Your task to perform on an android device: change the clock display to analog Image 0: 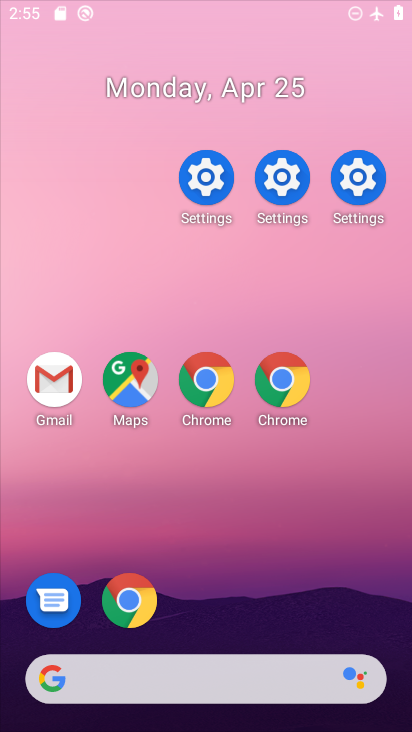
Step 0: click (92, 92)
Your task to perform on an android device: change the clock display to analog Image 1: 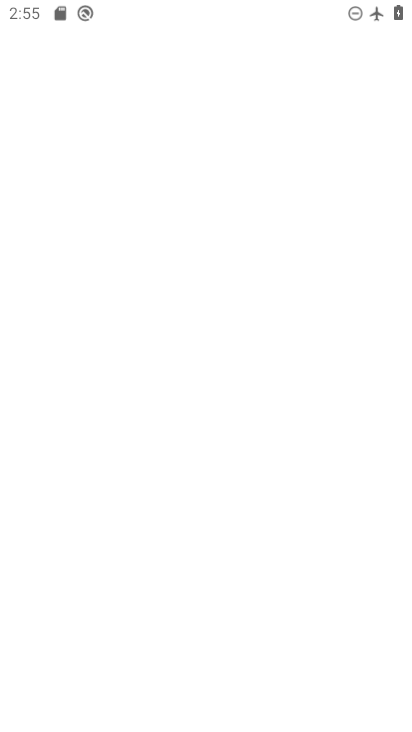
Step 1: drag from (218, 633) to (97, 36)
Your task to perform on an android device: change the clock display to analog Image 2: 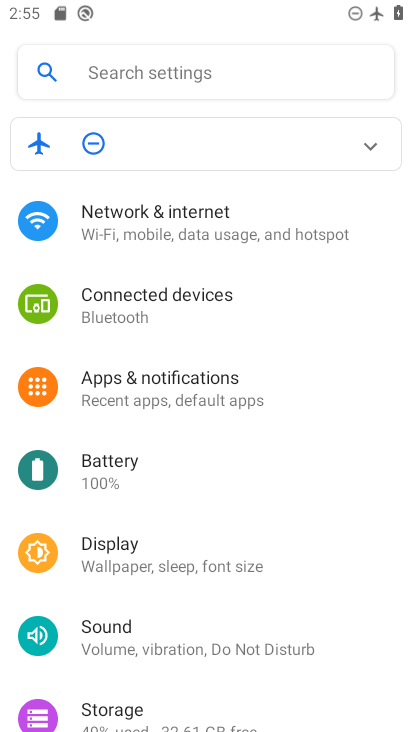
Step 2: click (125, 562)
Your task to perform on an android device: change the clock display to analog Image 3: 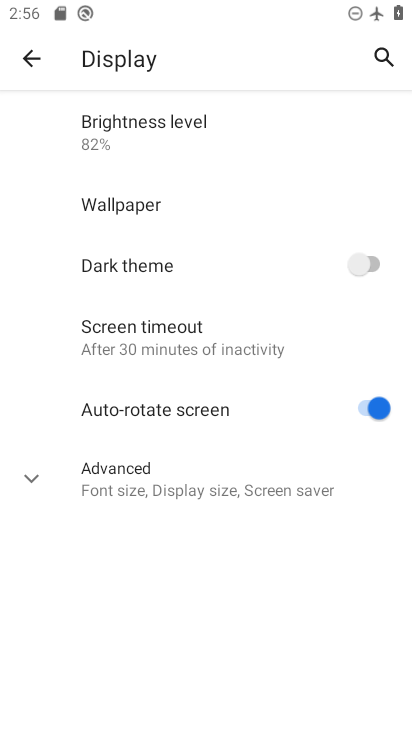
Step 3: click (28, 61)
Your task to perform on an android device: change the clock display to analog Image 4: 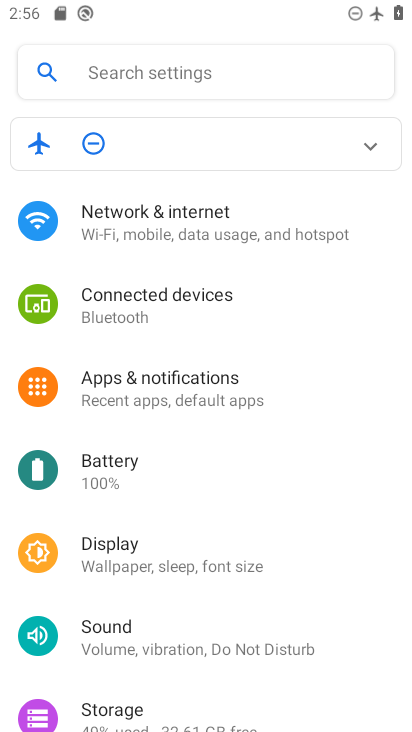
Step 4: press home button
Your task to perform on an android device: change the clock display to analog Image 5: 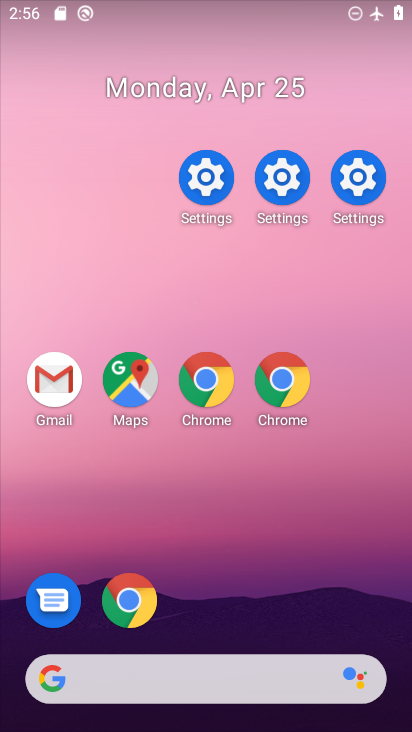
Step 5: drag from (330, 677) to (135, 0)
Your task to perform on an android device: change the clock display to analog Image 6: 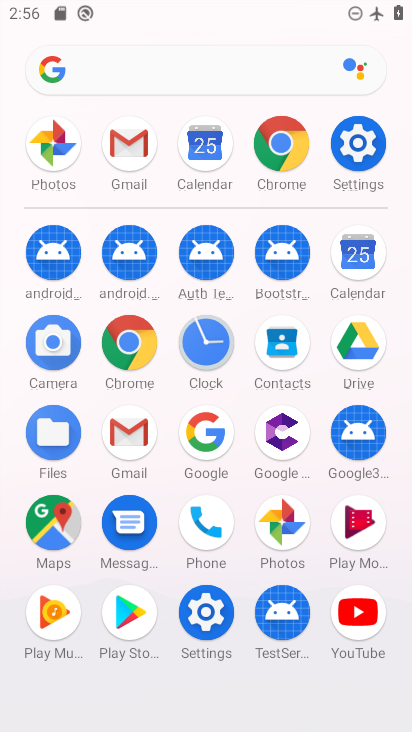
Step 6: click (196, 347)
Your task to perform on an android device: change the clock display to analog Image 7: 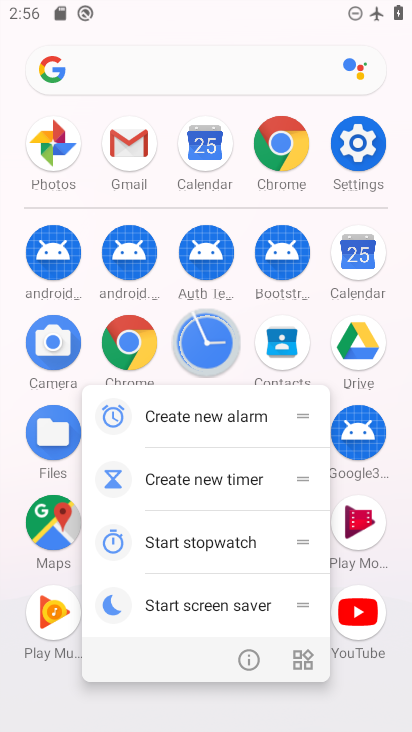
Step 7: click (197, 350)
Your task to perform on an android device: change the clock display to analog Image 8: 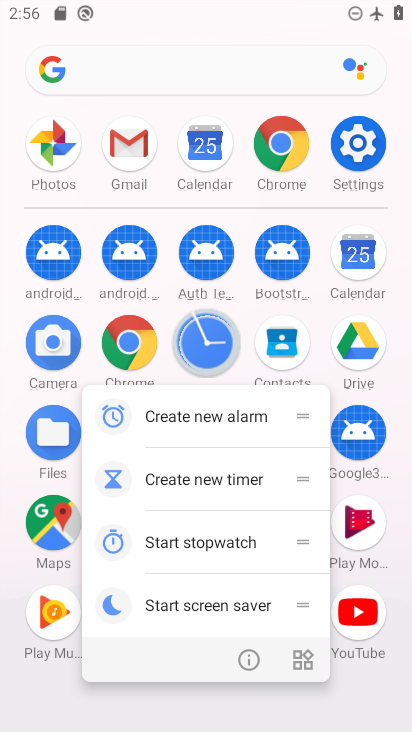
Step 8: click (190, 359)
Your task to perform on an android device: change the clock display to analog Image 9: 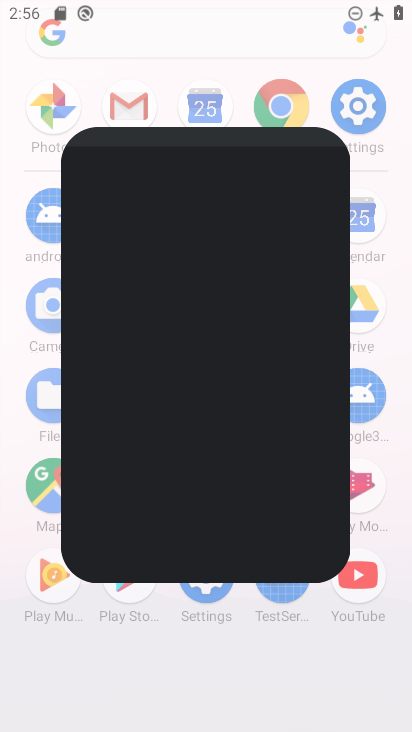
Step 9: click (209, 335)
Your task to perform on an android device: change the clock display to analog Image 10: 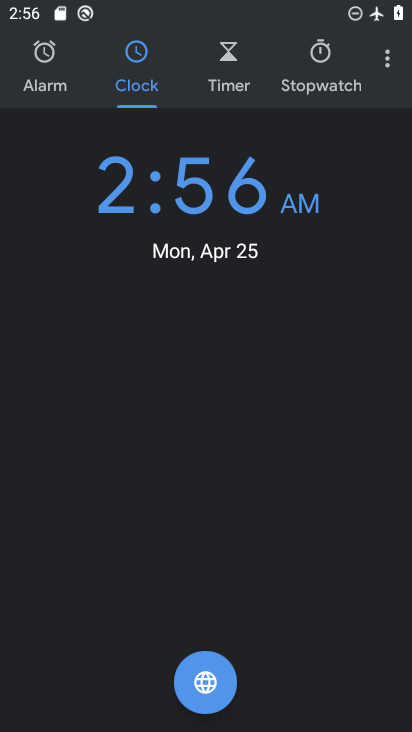
Step 10: click (388, 63)
Your task to perform on an android device: change the clock display to analog Image 11: 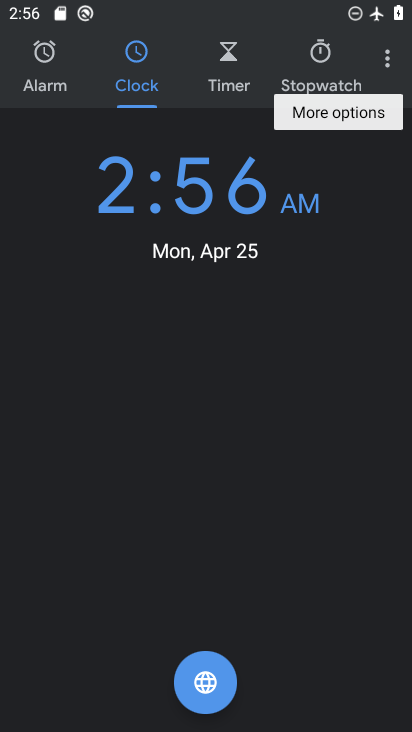
Step 11: click (348, 122)
Your task to perform on an android device: change the clock display to analog Image 12: 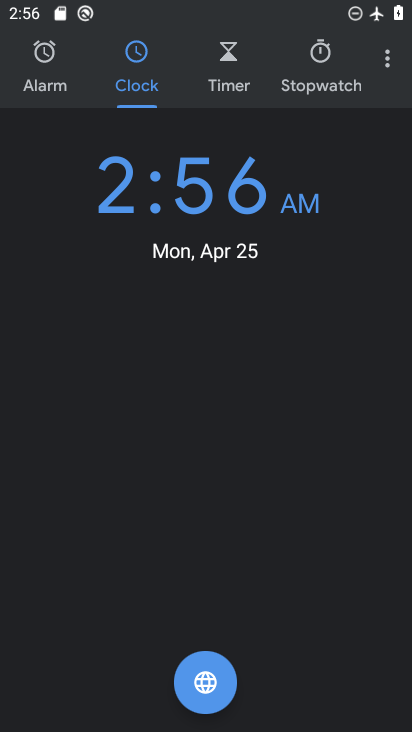
Step 12: click (384, 59)
Your task to perform on an android device: change the clock display to analog Image 13: 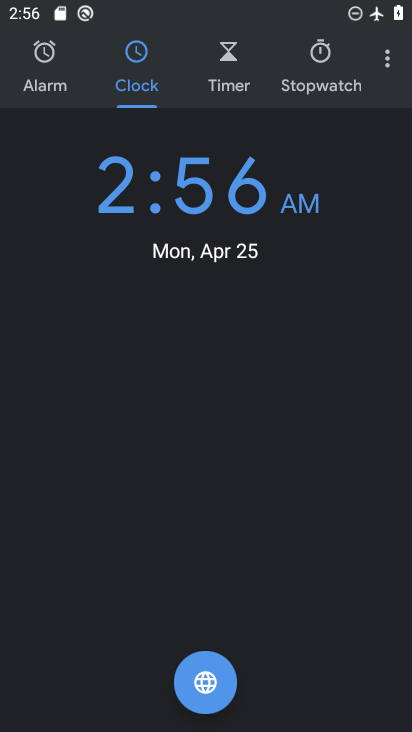
Step 13: click (385, 58)
Your task to perform on an android device: change the clock display to analog Image 14: 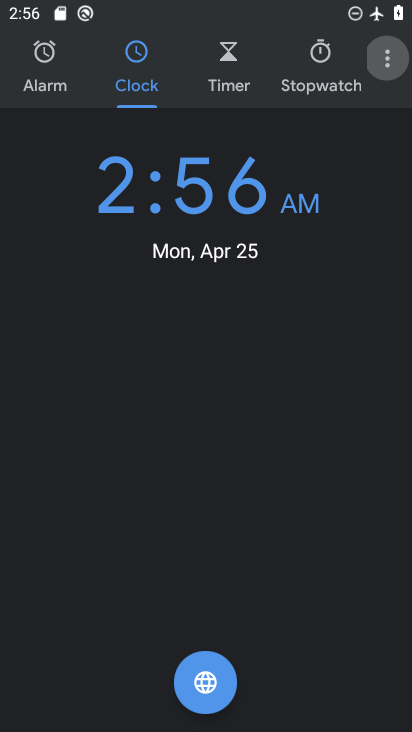
Step 14: click (389, 71)
Your task to perform on an android device: change the clock display to analog Image 15: 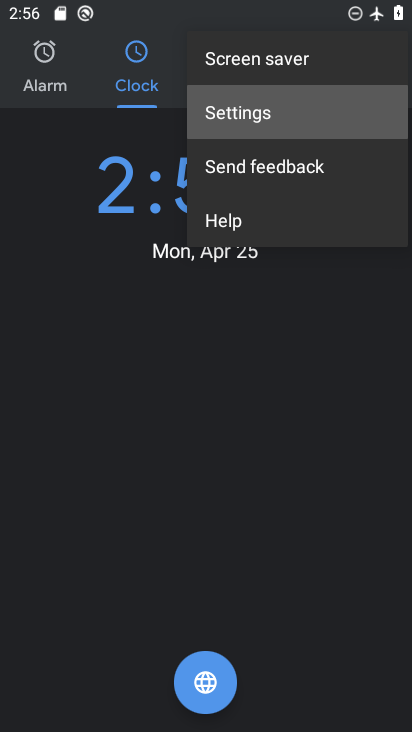
Step 15: click (390, 79)
Your task to perform on an android device: change the clock display to analog Image 16: 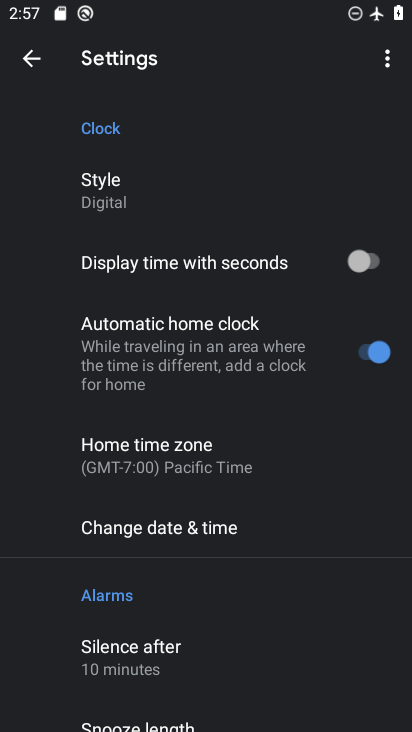
Step 16: click (158, 183)
Your task to perform on an android device: change the clock display to analog Image 17: 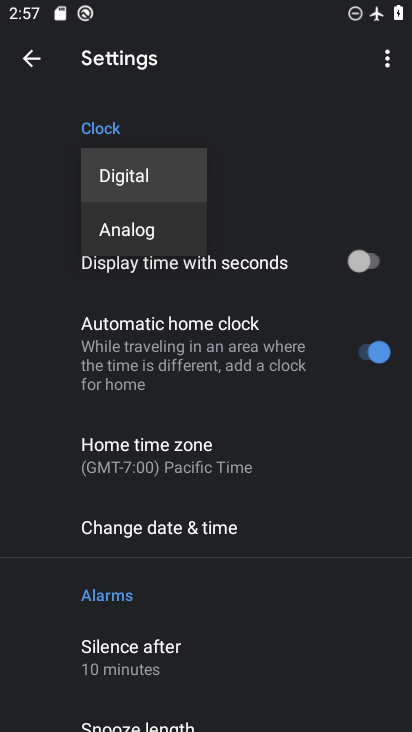
Step 17: click (154, 230)
Your task to perform on an android device: change the clock display to analog Image 18: 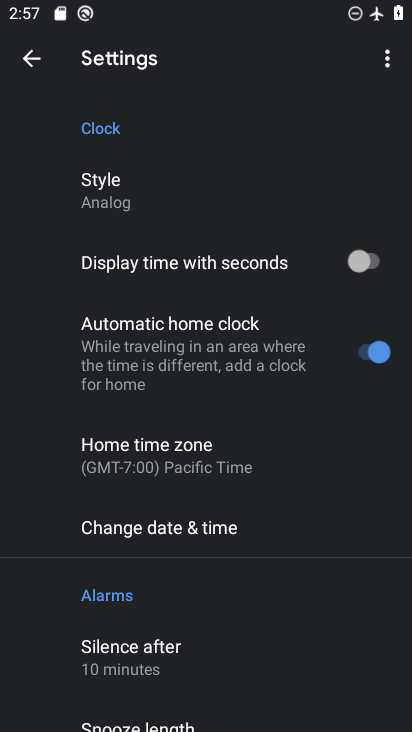
Step 18: task complete